Your task to perform on an android device: Search for vegetarian restaurants on Maps Image 0: 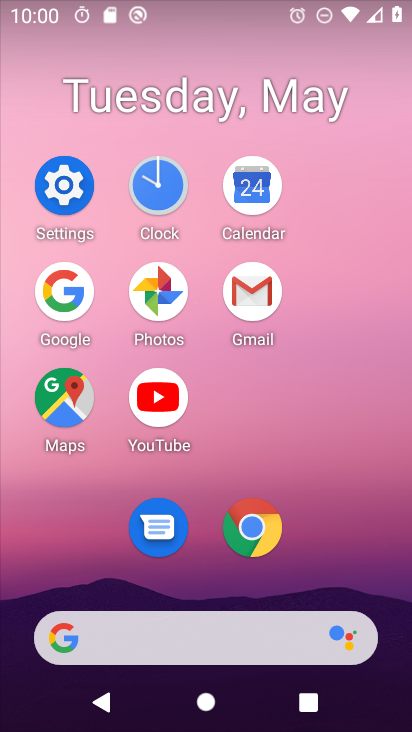
Step 0: click (61, 392)
Your task to perform on an android device: Search for vegetarian restaurants on Maps Image 1: 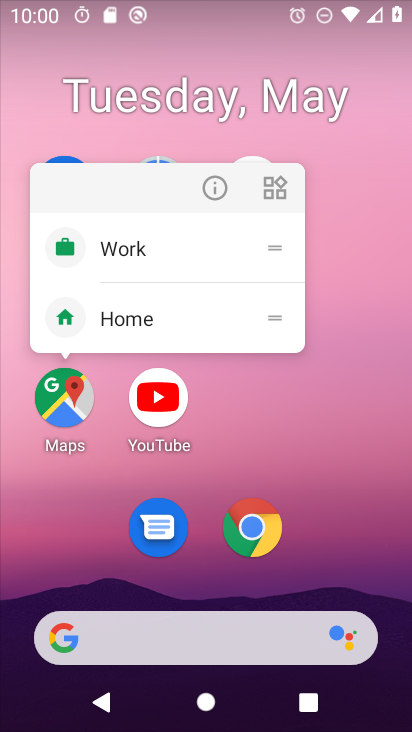
Step 1: click (62, 392)
Your task to perform on an android device: Search for vegetarian restaurants on Maps Image 2: 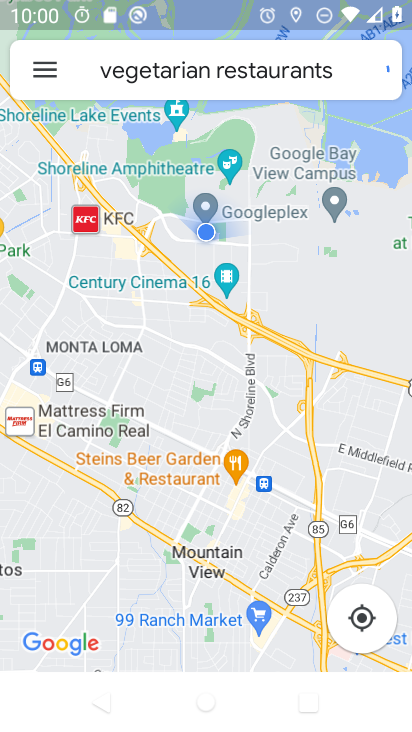
Step 2: task complete